Your task to perform on an android device: Search for vegetarian restaurants on Maps Image 0: 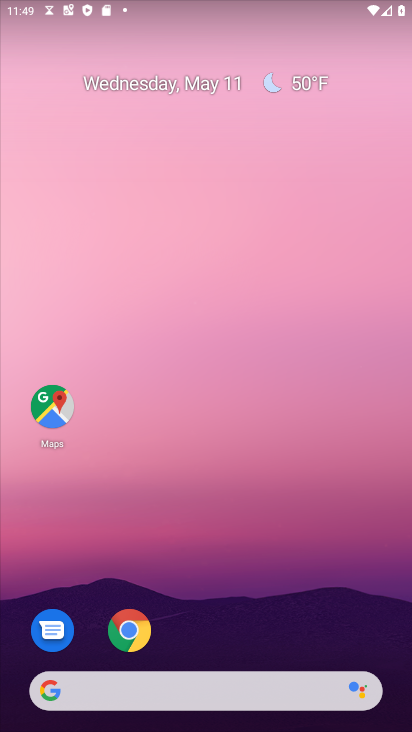
Step 0: drag from (214, 704) to (208, 143)
Your task to perform on an android device: Search for vegetarian restaurants on Maps Image 1: 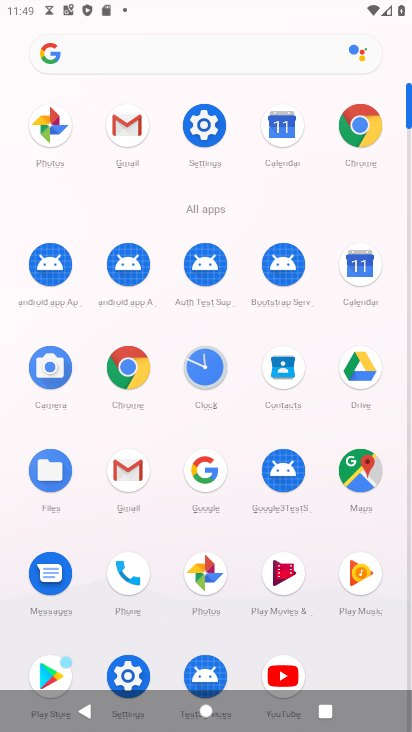
Step 1: click (358, 471)
Your task to perform on an android device: Search for vegetarian restaurants on Maps Image 2: 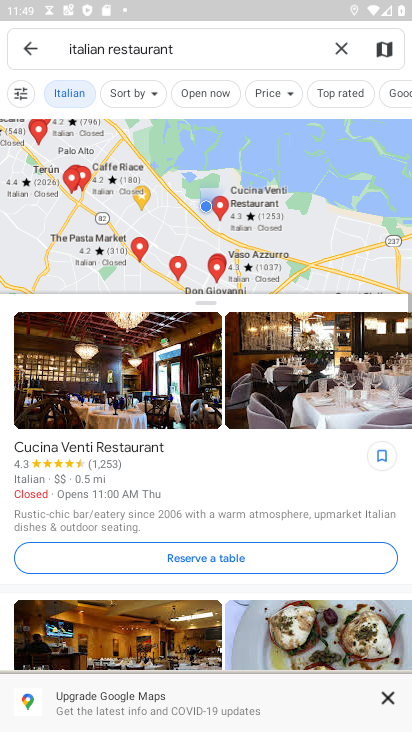
Step 2: click (345, 46)
Your task to perform on an android device: Search for vegetarian restaurants on Maps Image 3: 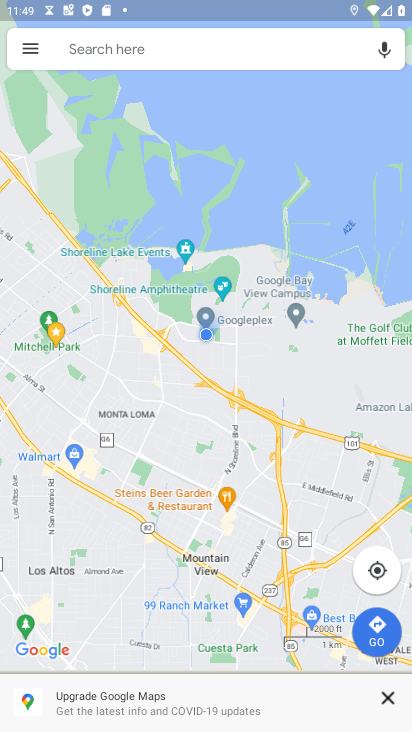
Step 3: click (177, 48)
Your task to perform on an android device: Search for vegetarian restaurants on Maps Image 4: 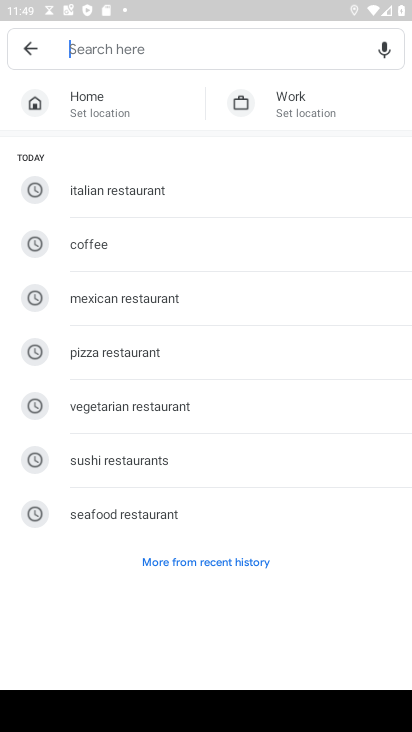
Step 4: type "vegetarian restaurants"
Your task to perform on an android device: Search for vegetarian restaurants on Maps Image 5: 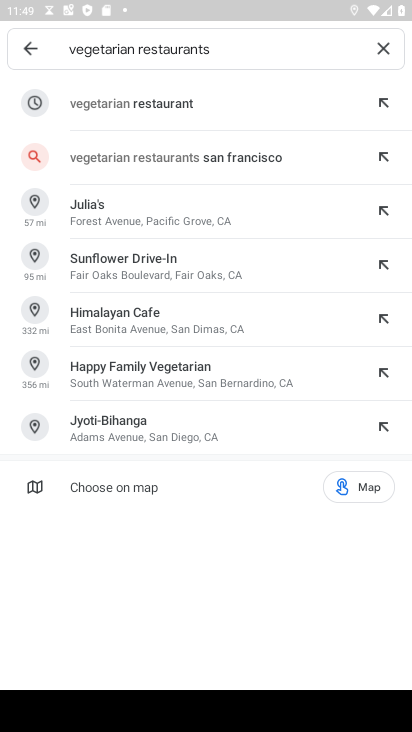
Step 5: click (114, 102)
Your task to perform on an android device: Search for vegetarian restaurants on Maps Image 6: 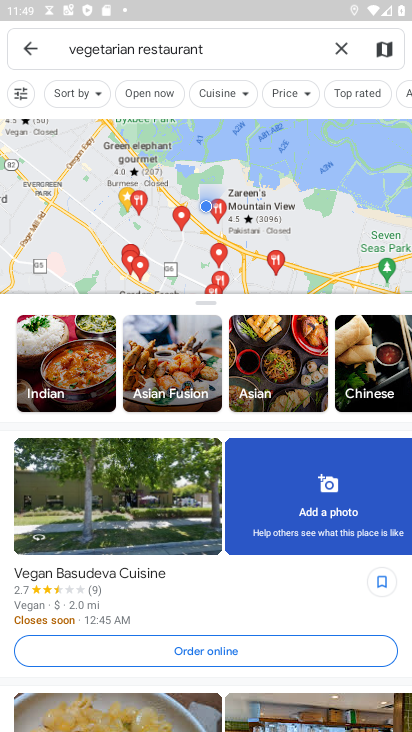
Step 6: task complete